Your task to perform on an android device: Do I have any events this weekend? Image 0: 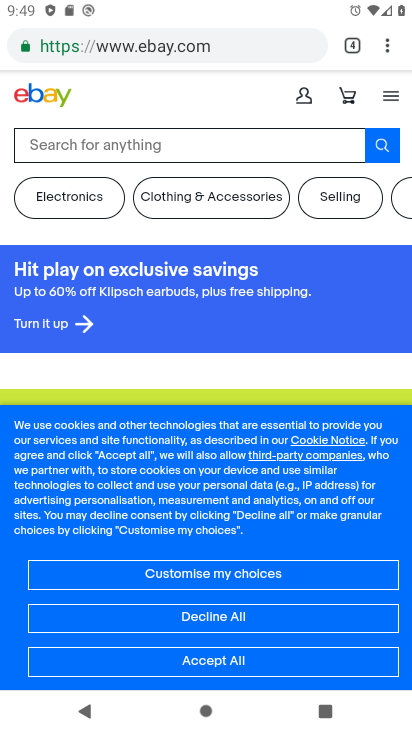
Step 0: press back button
Your task to perform on an android device: Do I have any events this weekend? Image 1: 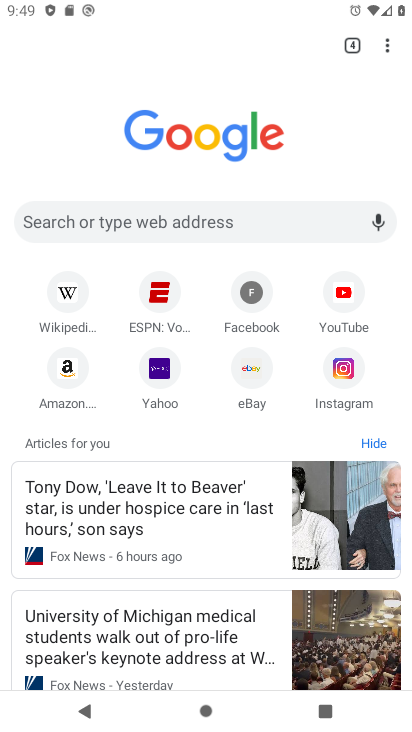
Step 1: press back button
Your task to perform on an android device: Do I have any events this weekend? Image 2: 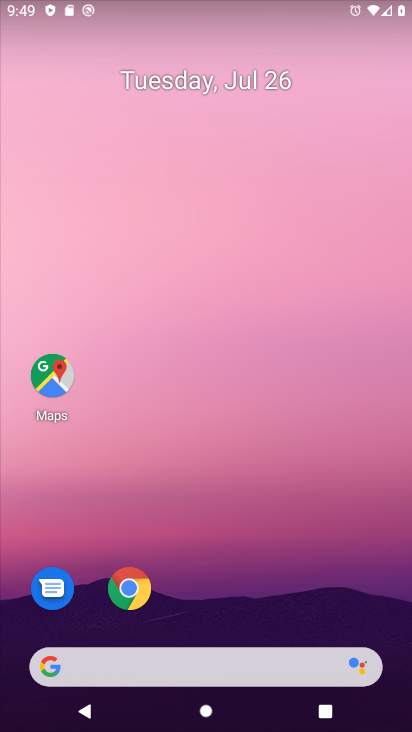
Step 2: drag from (251, 598) to (342, 6)
Your task to perform on an android device: Do I have any events this weekend? Image 3: 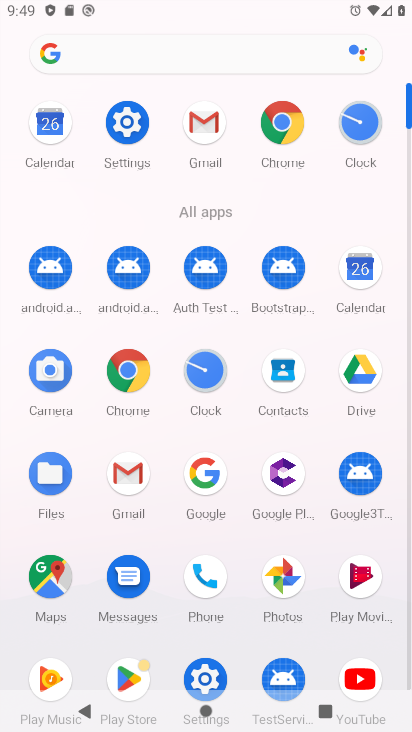
Step 3: click (356, 275)
Your task to perform on an android device: Do I have any events this weekend? Image 4: 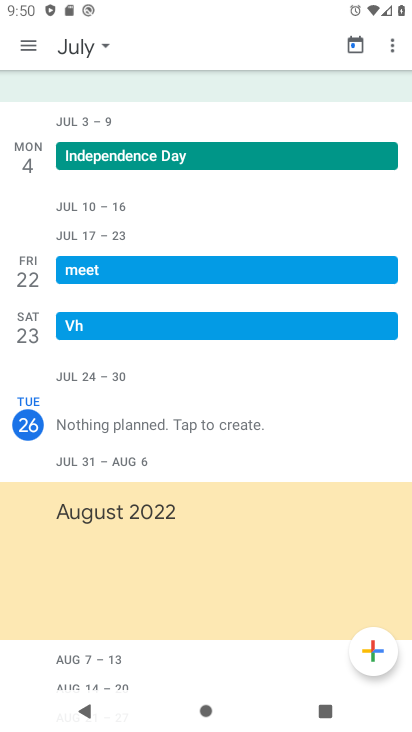
Step 4: click (100, 49)
Your task to perform on an android device: Do I have any events this weekend? Image 5: 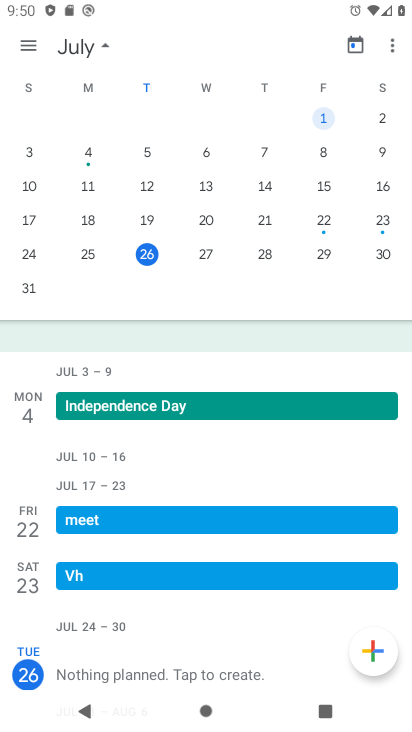
Step 5: click (371, 254)
Your task to perform on an android device: Do I have any events this weekend? Image 6: 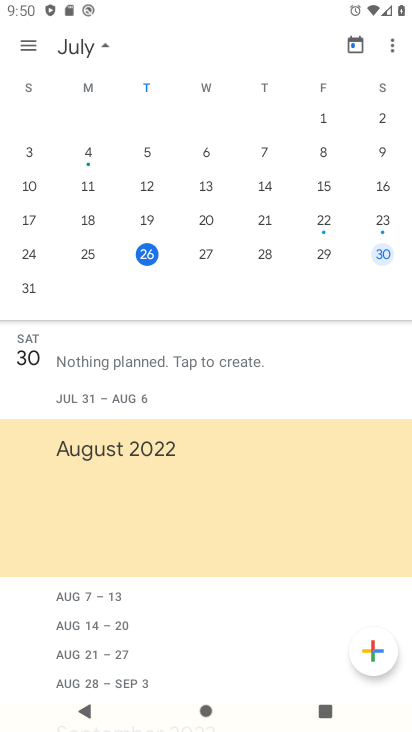
Step 6: task complete